Your task to perform on an android device: remove spam from my inbox in the gmail app Image 0: 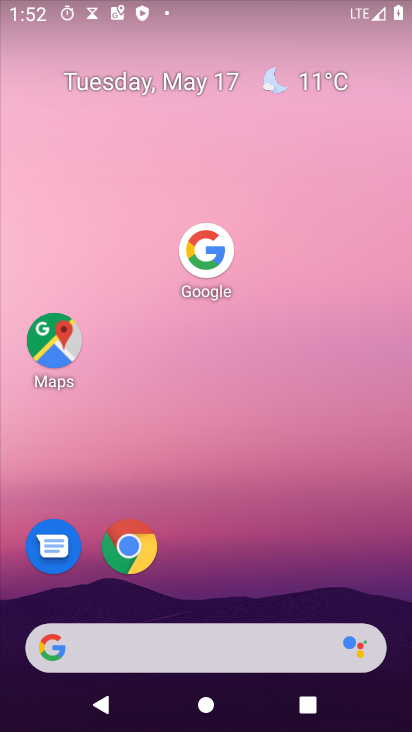
Step 0: press home button
Your task to perform on an android device: remove spam from my inbox in the gmail app Image 1: 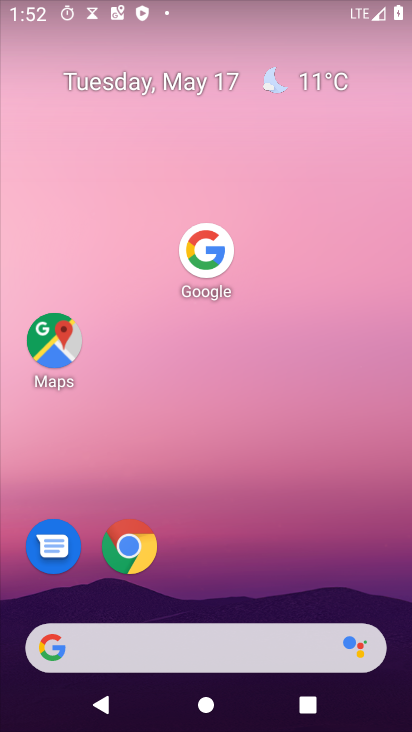
Step 1: drag from (167, 645) to (311, 151)
Your task to perform on an android device: remove spam from my inbox in the gmail app Image 2: 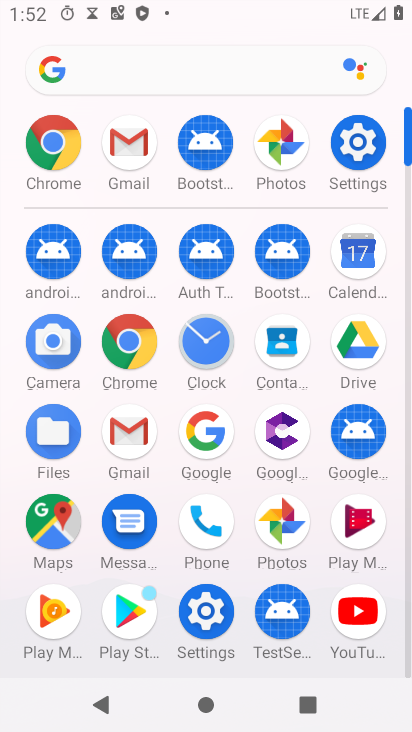
Step 2: click (128, 159)
Your task to perform on an android device: remove spam from my inbox in the gmail app Image 3: 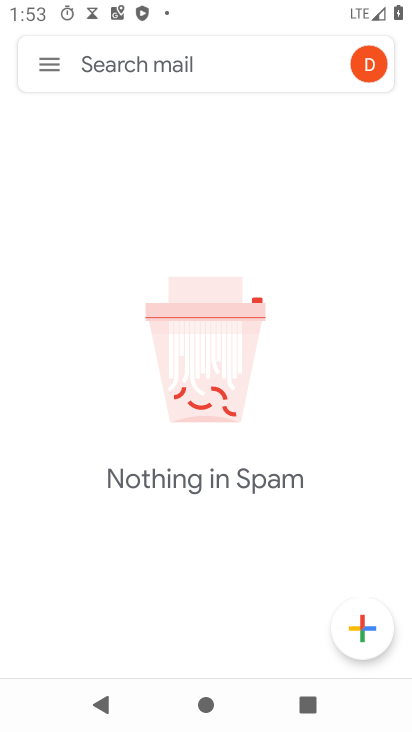
Step 3: task complete